Your task to perform on an android device: Open sound settings Image 0: 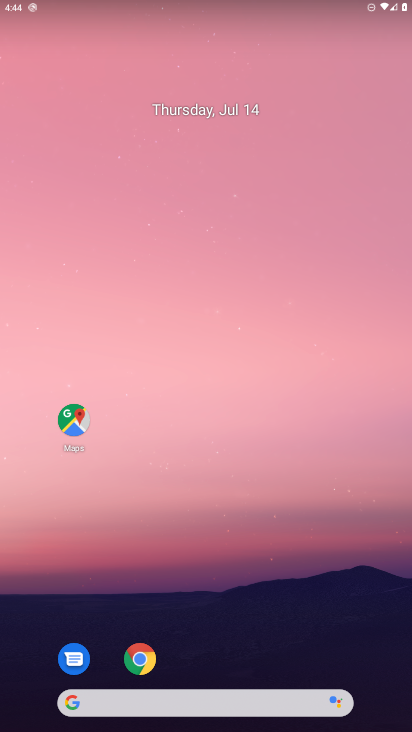
Step 0: press home button
Your task to perform on an android device: Open sound settings Image 1: 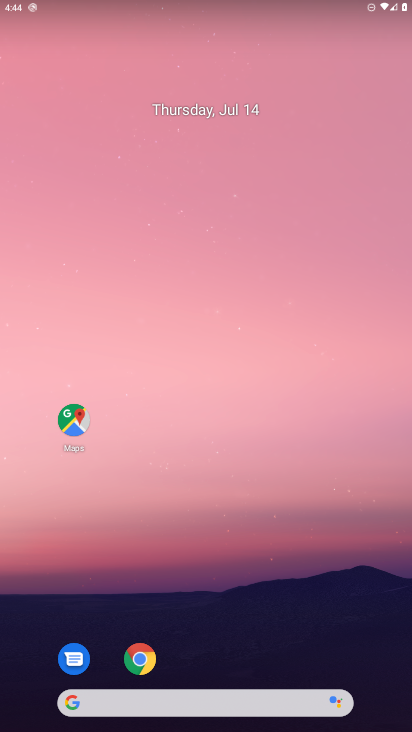
Step 1: drag from (200, 655) to (242, 148)
Your task to perform on an android device: Open sound settings Image 2: 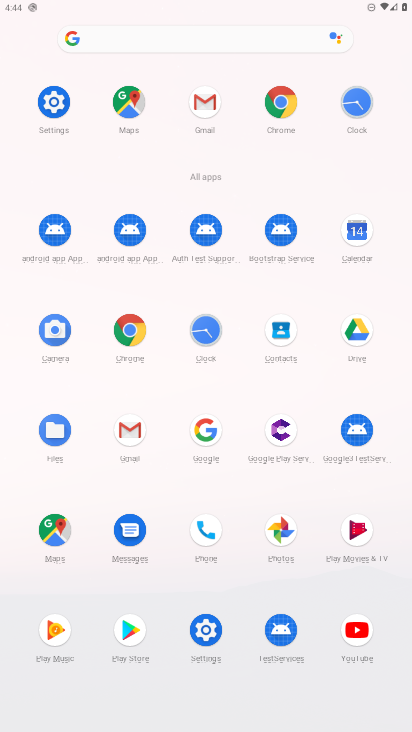
Step 2: click (203, 624)
Your task to perform on an android device: Open sound settings Image 3: 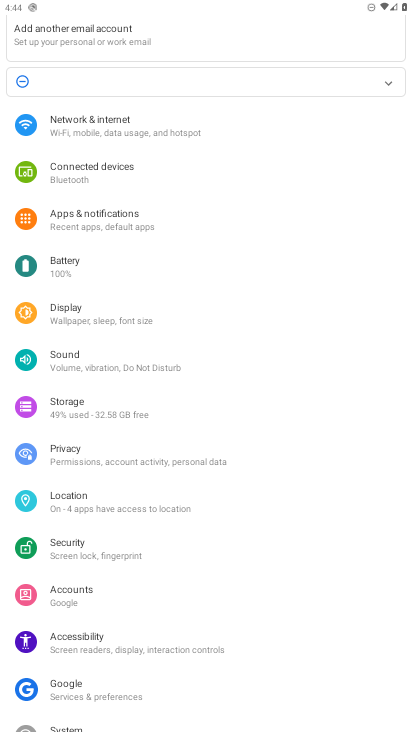
Step 3: click (98, 360)
Your task to perform on an android device: Open sound settings Image 4: 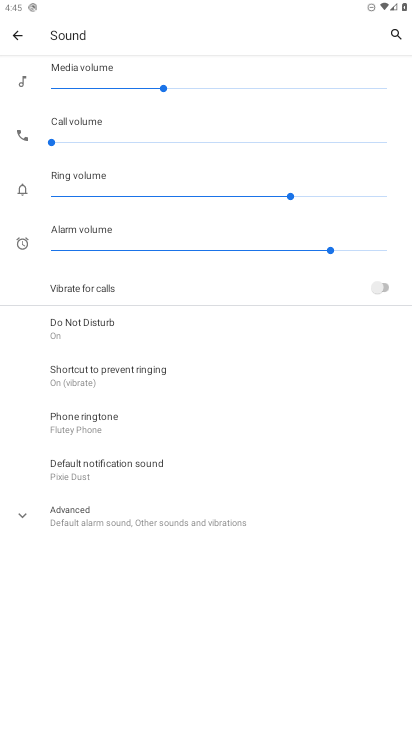
Step 4: click (21, 511)
Your task to perform on an android device: Open sound settings Image 5: 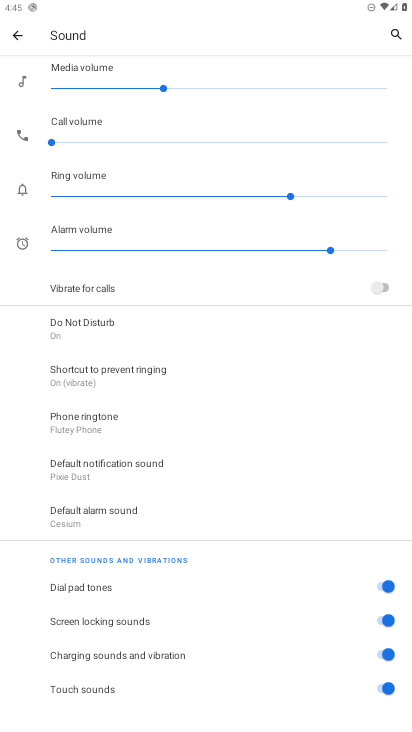
Step 5: task complete